Your task to perform on an android device: turn notification dots on Image 0: 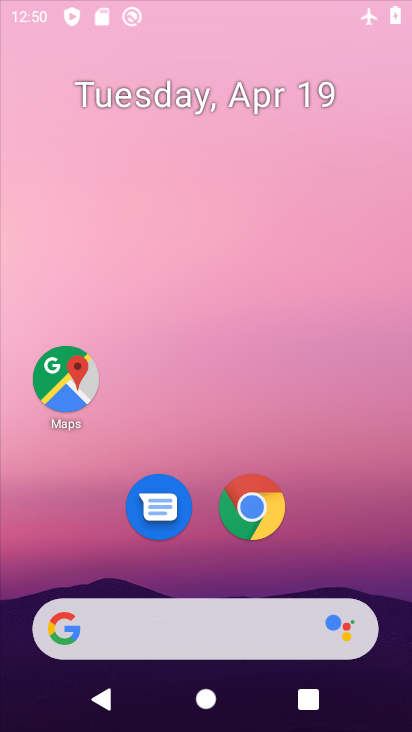
Step 0: drag from (220, 566) to (260, 31)
Your task to perform on an android device: turn notification dots on Image 1: 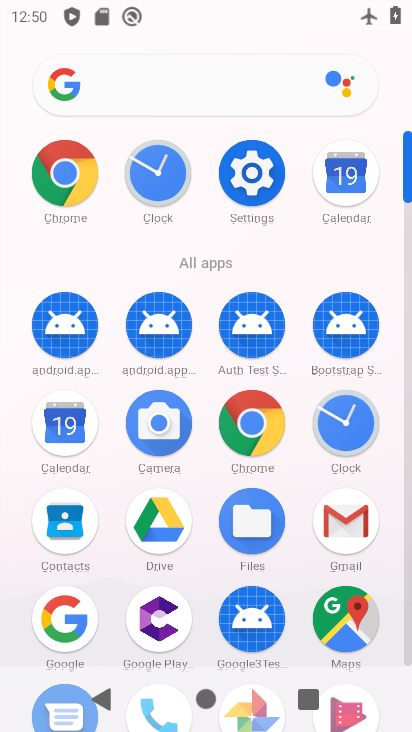
Step 1: click (250, 166)
Your task to perform on an android device: turn notification dots on Image 2: 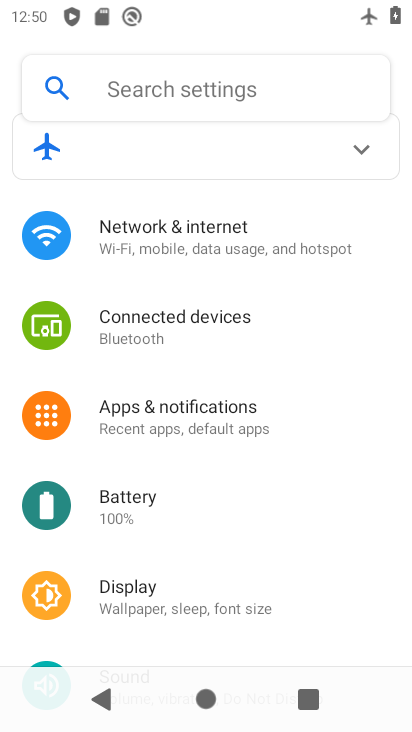
Step 2: click (269, 413)
Your task to perform on an android device: turn notification dots on Image 3: 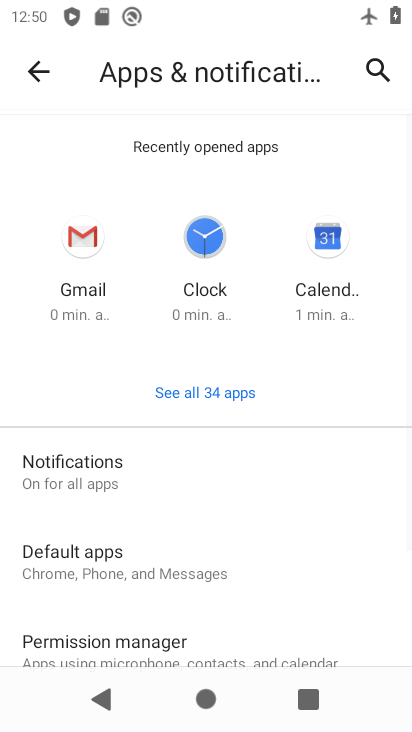
Step 3: click (132, 470)
Your task to perform on an android device: turn notification dots on Image 4: 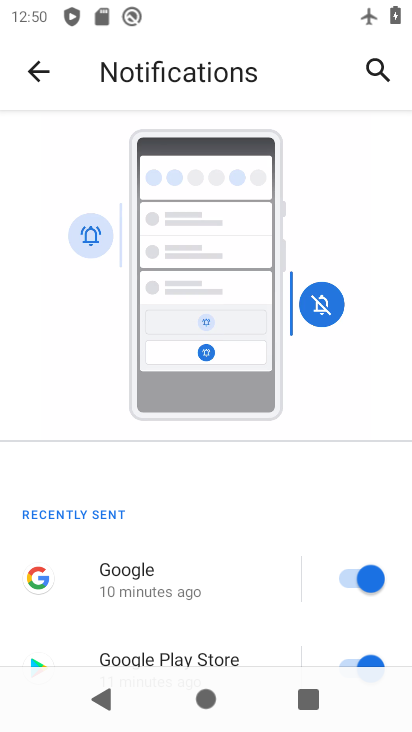
Step 4: drag from (230, 619) to (295, 208)
Your task to perform on an android device: turn notification dots on Image 5: 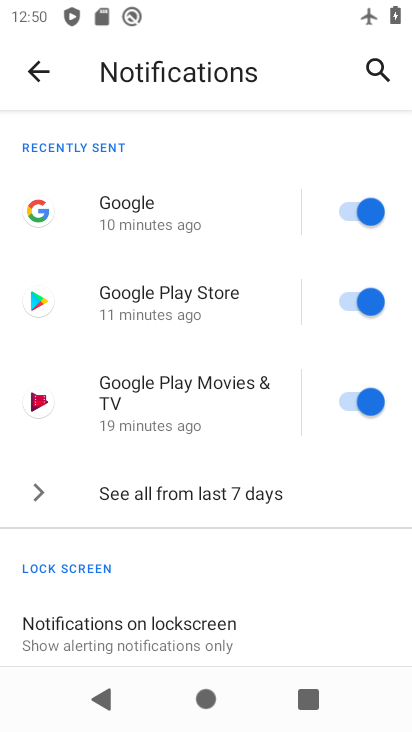
Step 5: drag from (246, 631) to (269, 148)
Your task to perform on an android device: turn notification dots on Image 6: 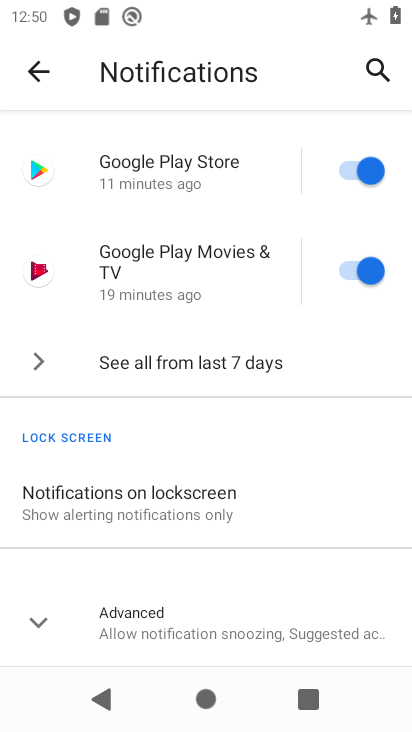
Step 6: click (39, 621)
Your task to perform on an android device: turn notification dots on Image 7: 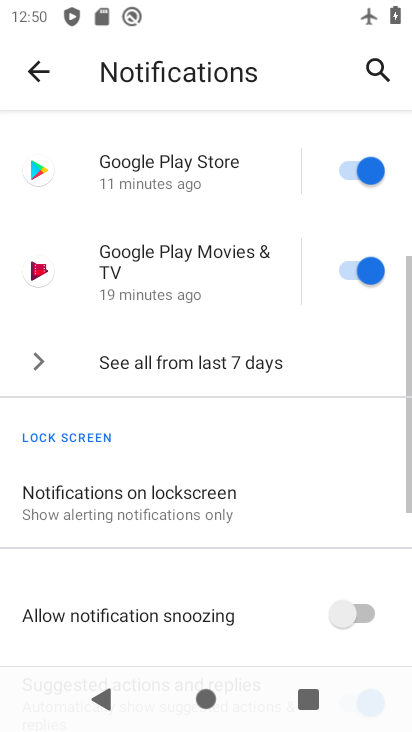
Step 7: task complete